Your task to perform on an android device: Check the weather Image 0: 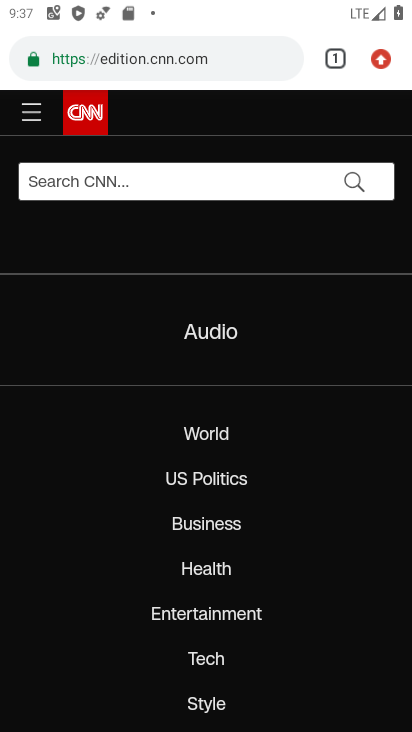
Step 0: press home button
Your task to perform on an android device: Check the weather Image 1: 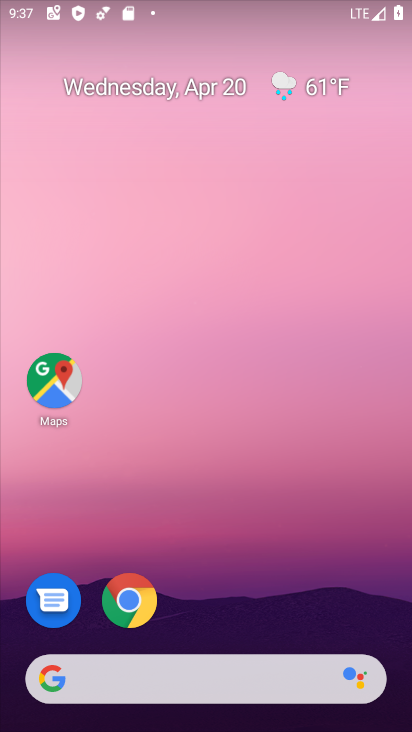
Step 1: drag from (194, 623) to (217, 41)
Your task to perform on an android device: Check the weather Image 2: 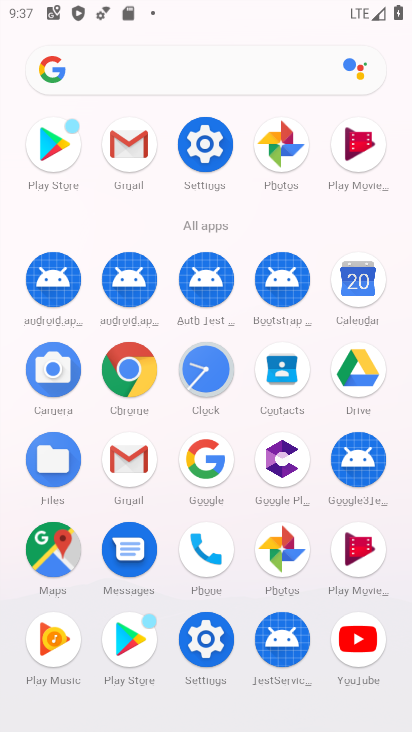
Step 2: press home button
Your task to perform on an android device: Check the weather Image 3: 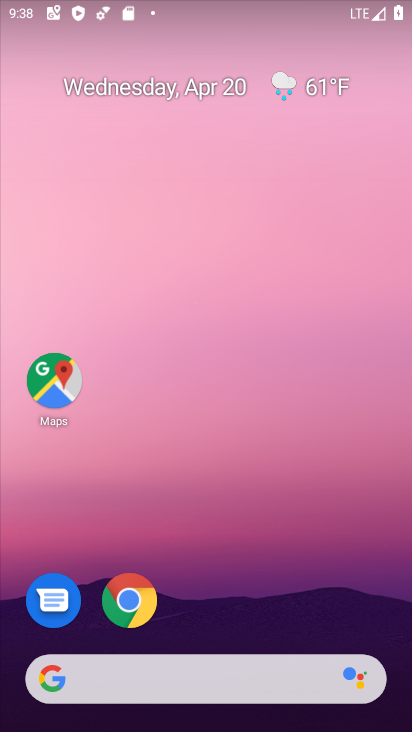
Step 3: click (342, 86)
Your task to perform on an android device: Check the weather Image 4: 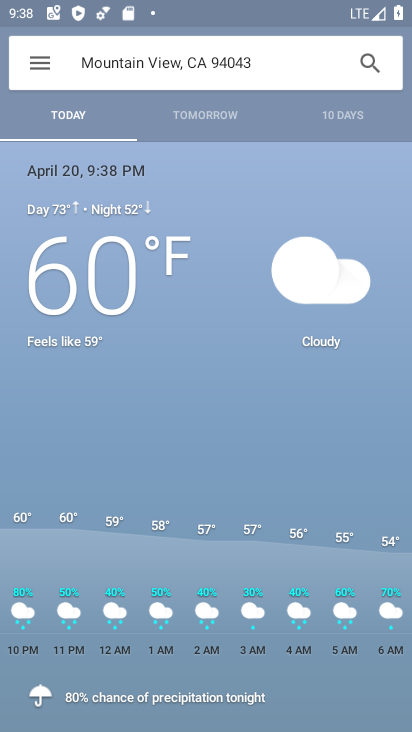
Step 4: task complete